Your task to perform on an android device: open sync settings in chrome Image 0: 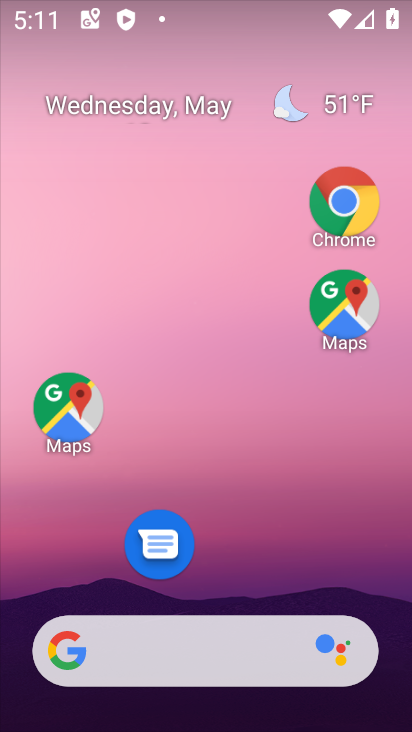
Step 0: drag from (292, 562) to (214, 142)
Your task to perform on an android device: open sync settings in chrome Image 1: 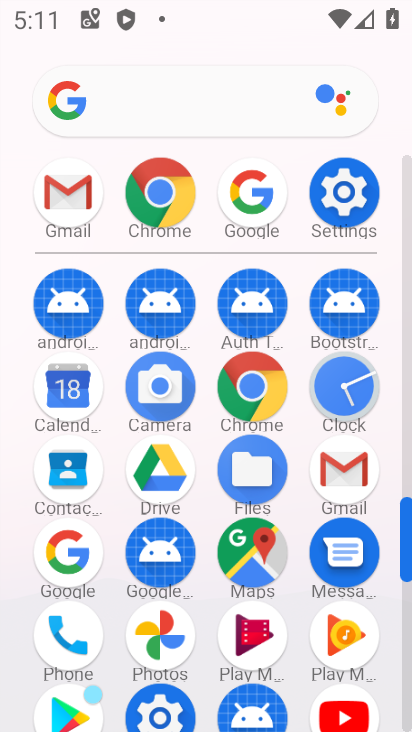
Step 1: click (162, 217)
Your task to perform on an android device: open sync settings in chrome Image 2: 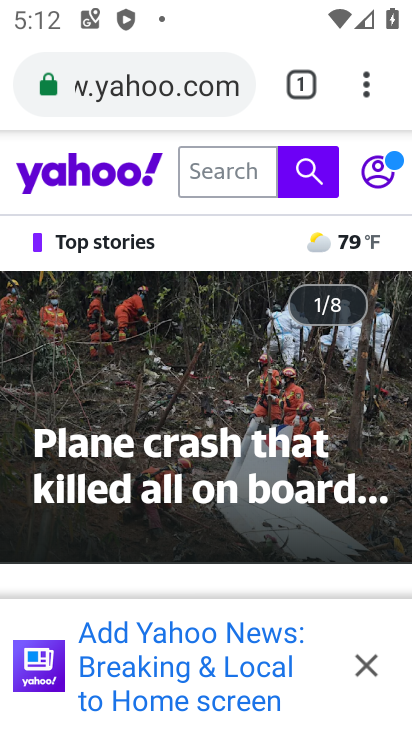
Step 2: click (367, 94)
Your task to perform on an android device: open sync settings in chrome Image 3: 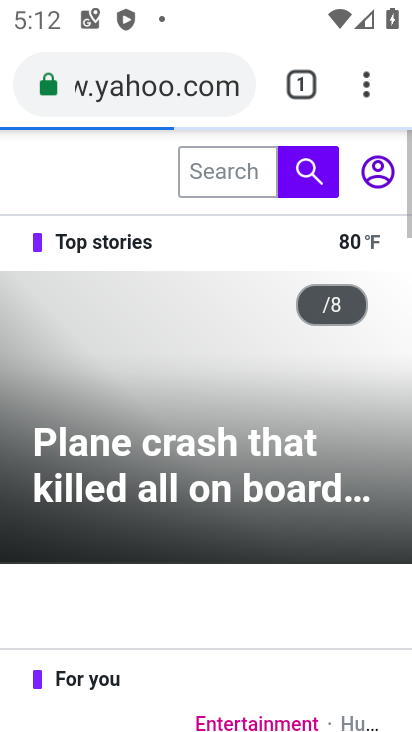
Step 3: click (367, 94)
Your task to perform on an android device: open sync settings in chrome Image 4: 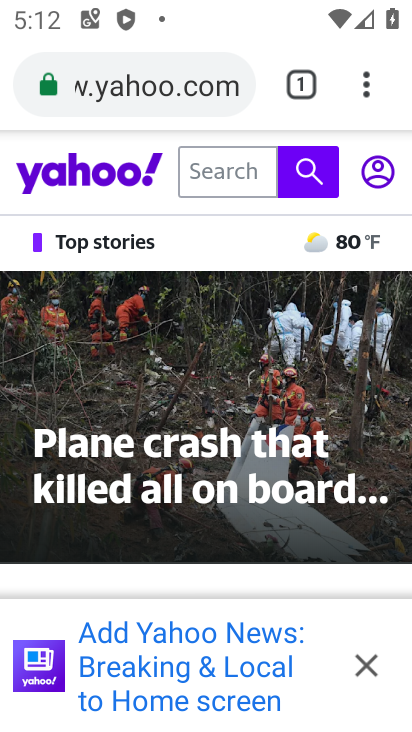
Step 4: click (364, 87)
Your task to perform on an android device: open sync settings in chrome Image 5: 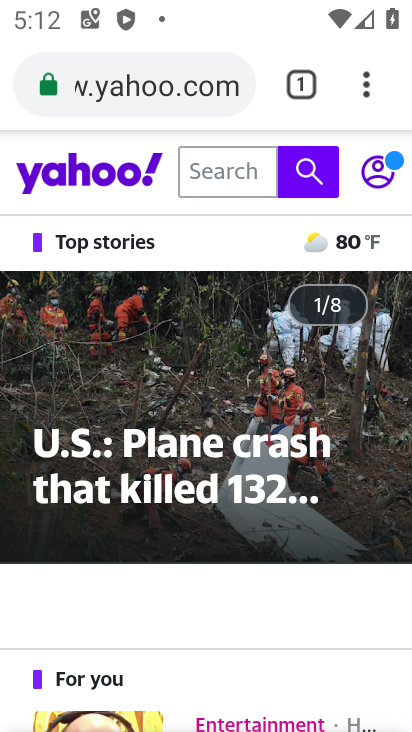
Step 5: click (365, 86)
Your task to perform on an android device: open sync settings in chrome Image 6: 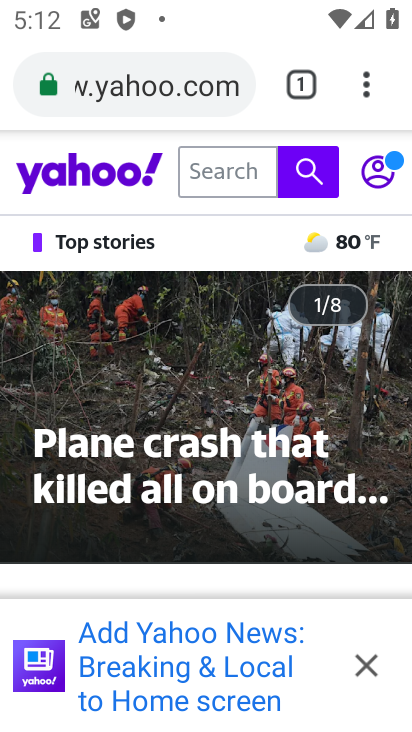
Step 6: click (365, 87)
Your task to perform on an android device: open sync settings in chrome Image 7: 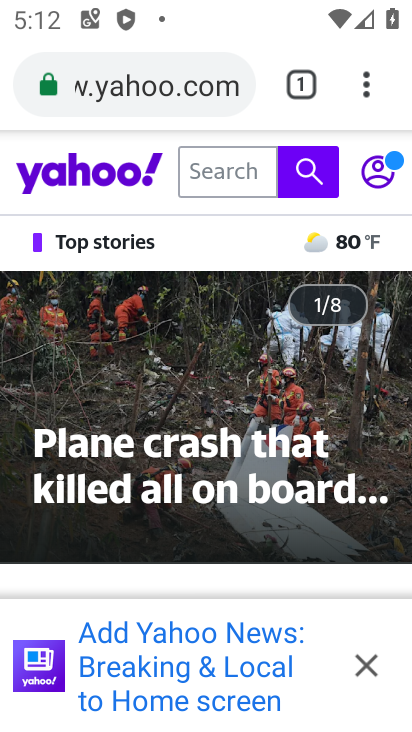
Step 7: click (368, 82)
Your task to perform on an android device: open sync settings in chrome Image 8: 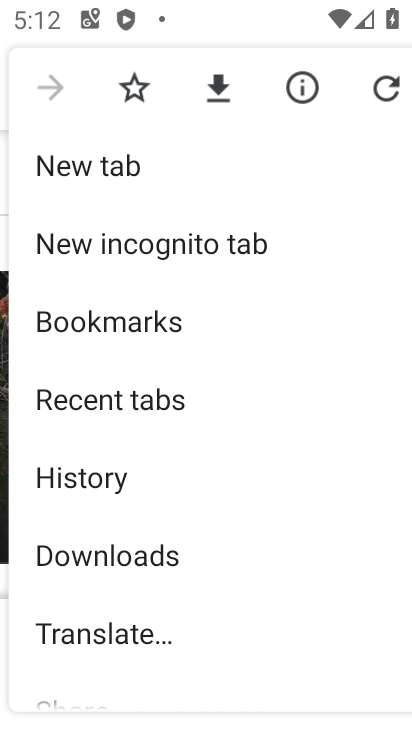
Step 8: drag from (162, 591) to (206, 223)
Your task to perform on an android device: open sync settings in chrome Image 9: 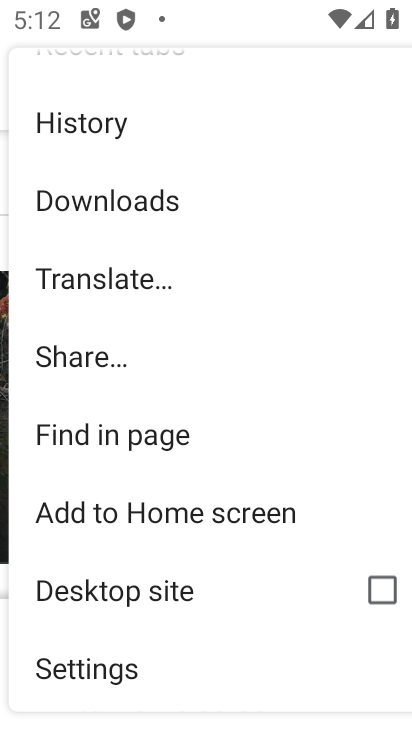
Step 9: drag from (210, 517) to (212, 344)
Your task to perform on an android device: open sync settings in chrome Image 10: 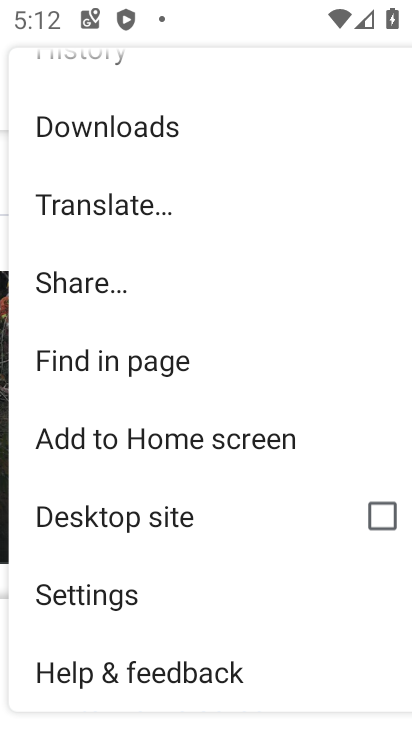
Step 10: click (112, 601)
Your task to perform on an android device: open sync settings in chrome Image 11: 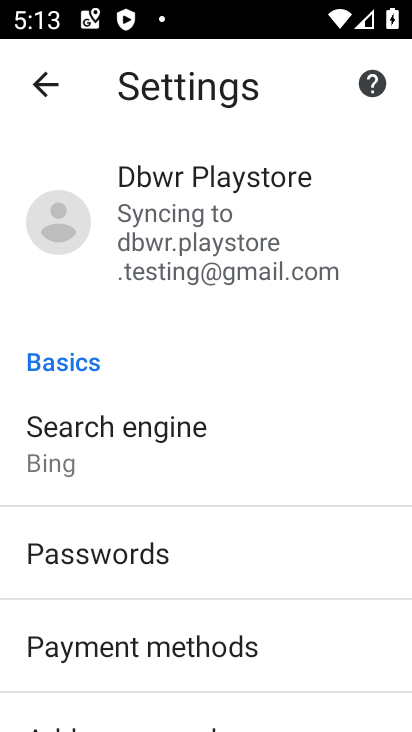
Step 11: click (191, 280)
Your task to perform on an android device: open sync settings in chrome Image 12: 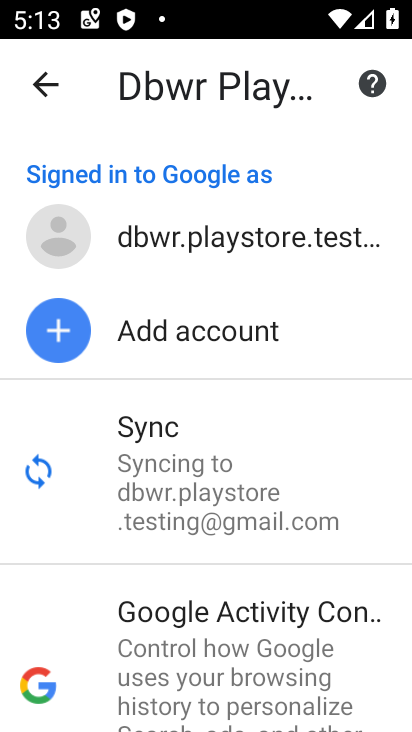
Step 12: click (174, 461)
Your task to perform on an android device: open sync settings in chrome Image 13: 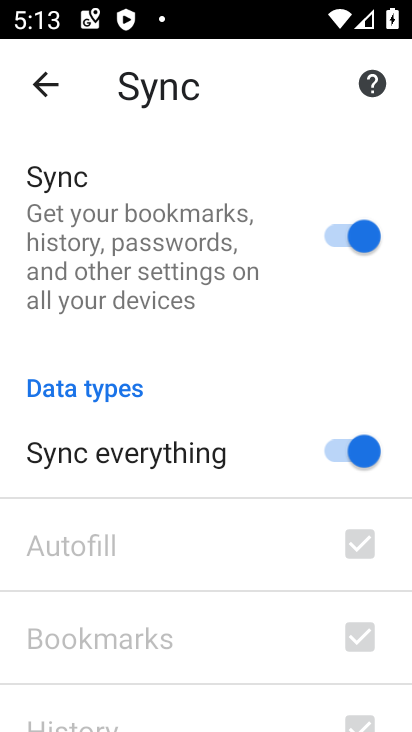
Step 13: task complete